Your task to perform on an android device: What's on my calendar today? Image 0: 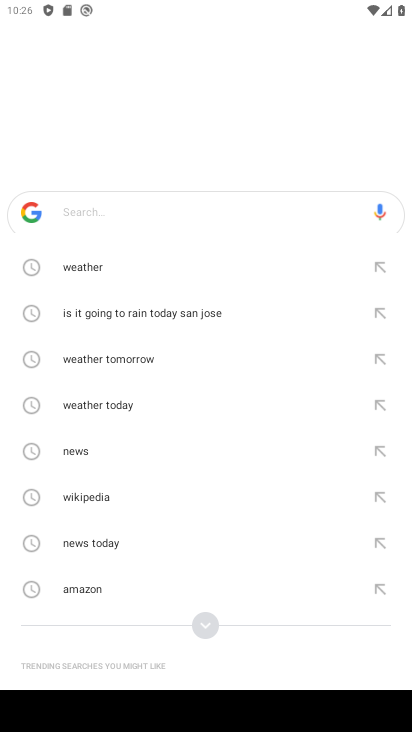
Step 0: press home button
Your task to perform on an android device: What's on my calendar today? Image 1: 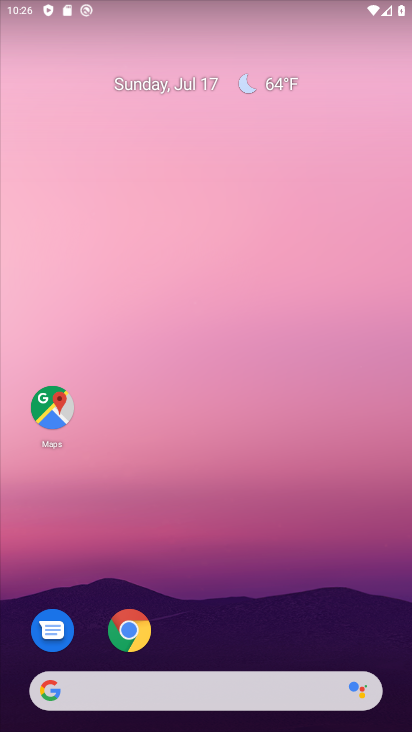
Step 1: drag from (355, 615) to (282, 144)
Your task to perform on an android device: What's on my calendar today? Image 2: 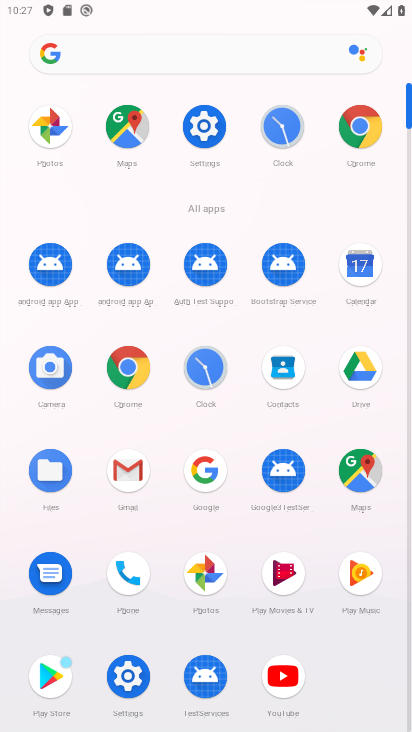
Step 2: click (356, 263)
Your task to perform on an android device: What's on my calendar today? Image 3: 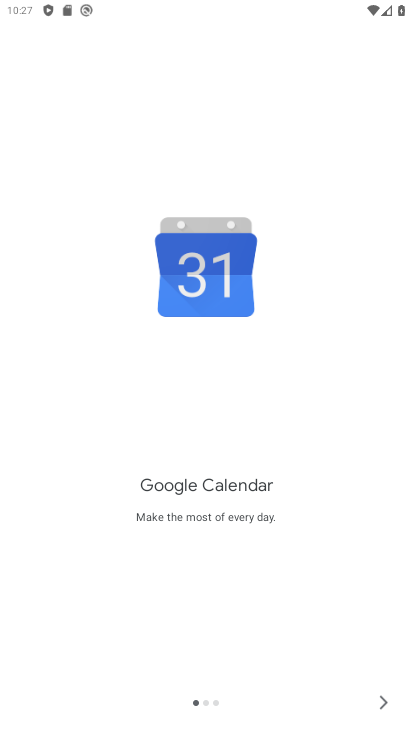
Step 3: click (387, 698)
Your task to perform on an android device: What's on my calendar today? Image 4: 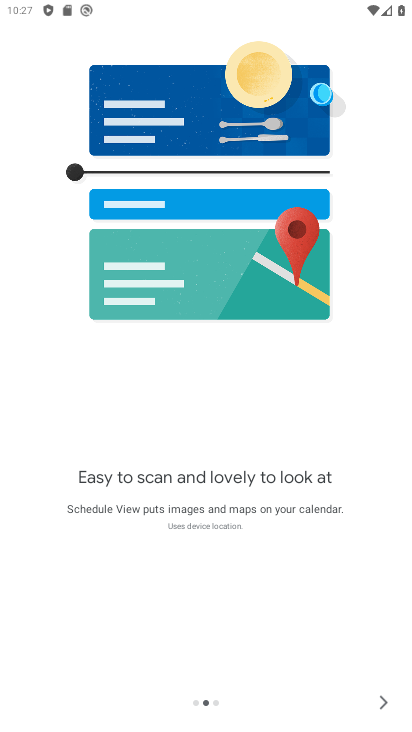
Step 4: click (380, 703)
Your task to perform on an android device: What's on my calendar today? Image 5: 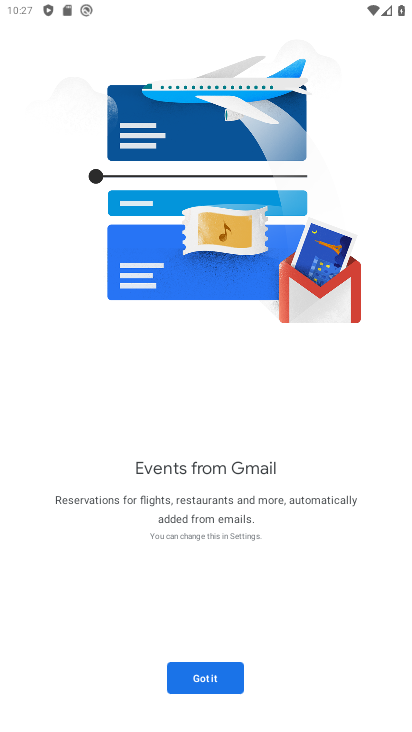
Step 5: click (189, 675)
Your task to perform on an android device: What's on my calendar today? Image 6: 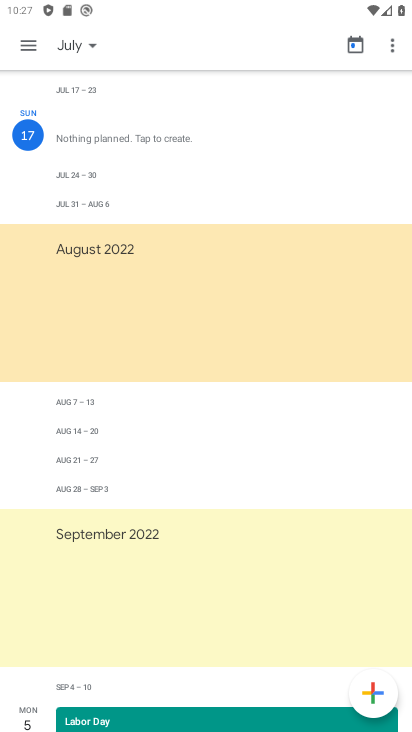
Step 6: click (21, 52)
Your task to perform on an android device: What's on my calendar today? Image 7: 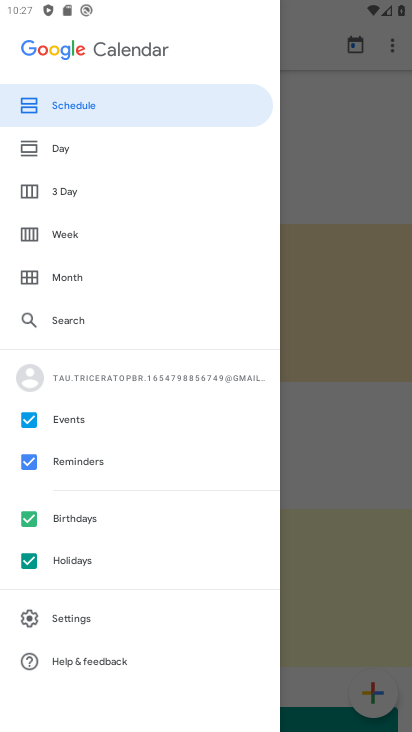
Step 7: click (54, 134)
Your task to perform on an android device: What's on my calendar today? Image 8: 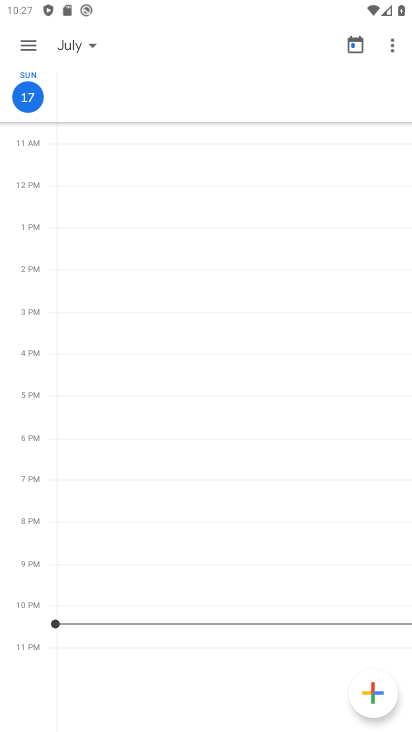
Step 8: click (95, 46)
Your task to perform on an android device: What's on my calendar today? Image 9: 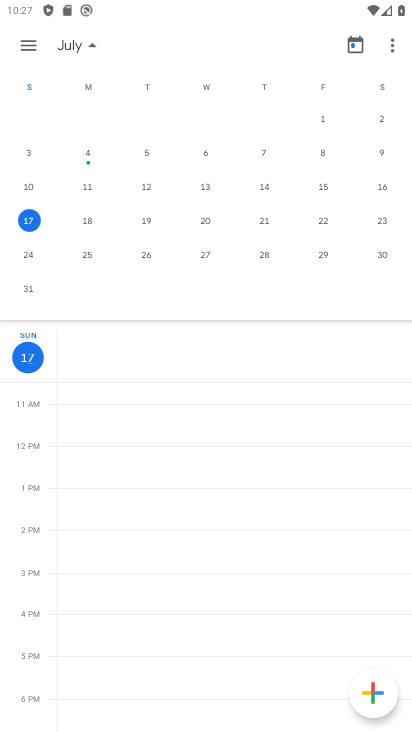
Step 9: click (23, 219)
Your task to perform on an android device: What's on my calendar today? Image 10: 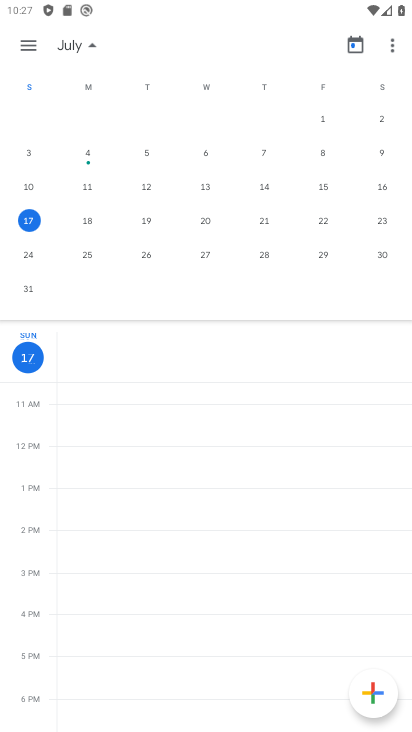
Step 10: task complete